Your task to perform on an android device: Do I have any events this weekend? Image 0: 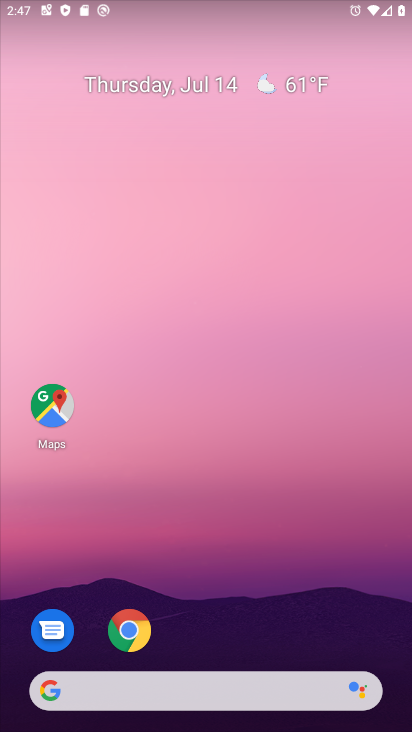
Step 0: drag from (182, 678) to (256, 136)
Your task to perform on an android device: Do I have any events this weekend? Image 1: 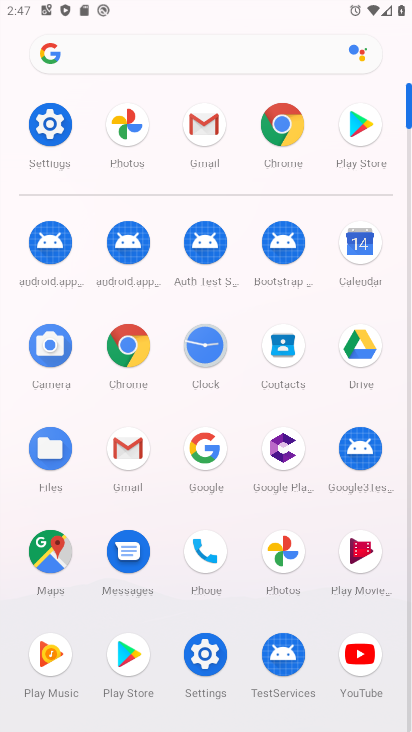
Step 1: click (359, 251)
Your task to perform on an android device: Do I have any events this weekend? Image 2: 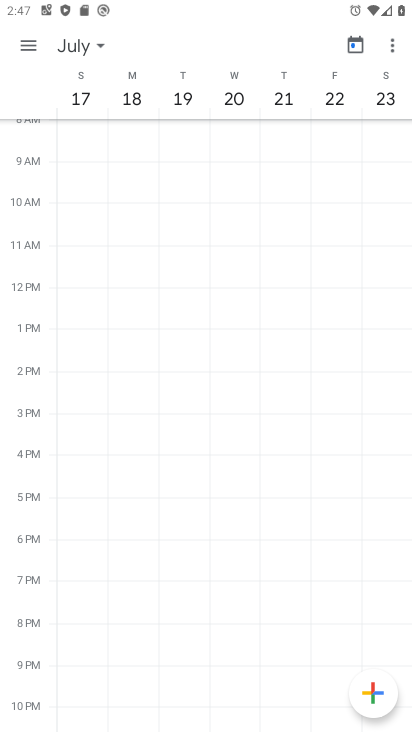
Step 2: click (83, 47)
Your task to perform on an android device: Do I have any events this weekend? Image 3: 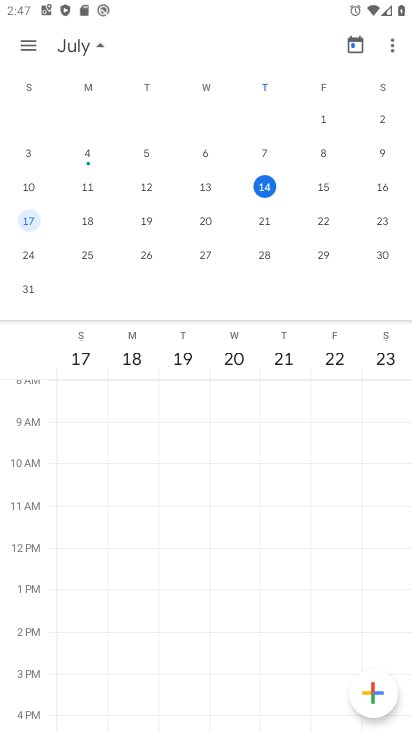
Step 3: click (380, 193)
Your task to perform on an android device: Do I have any events this weekend? Image 4: 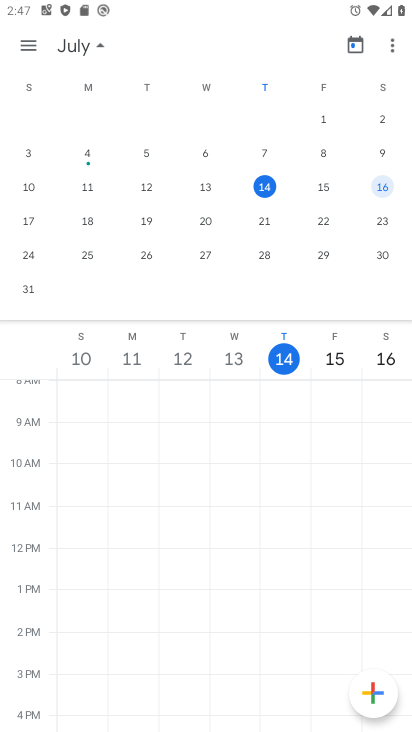
Step 4: click (26, 49)
Your task to perform on an android device: Do I have any events this weekend? Image 5: 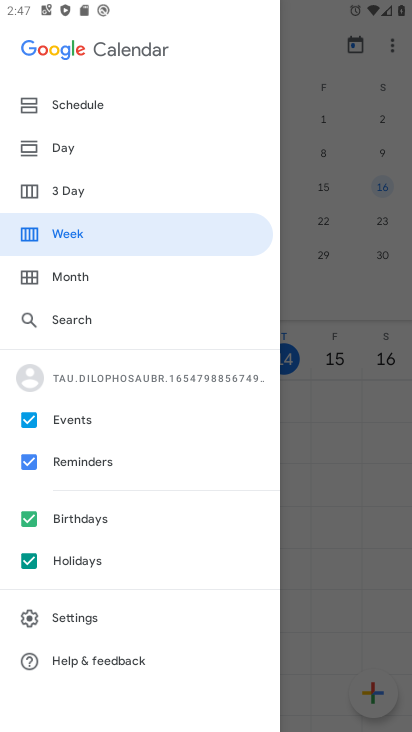
Step 5: click (71, 152)
Your task to perform on an android device: Do I have any events this weekend? Image 6: 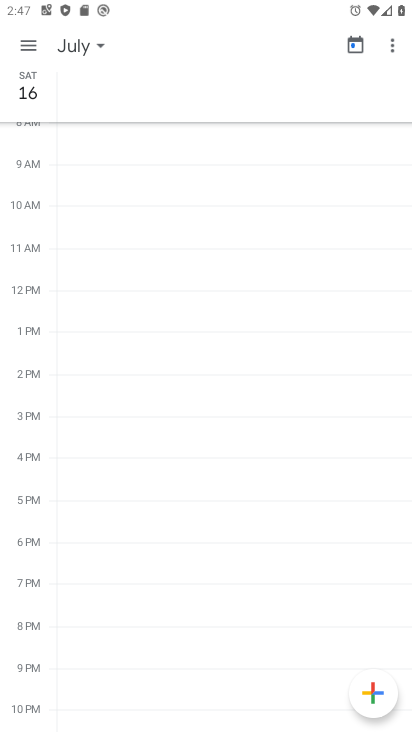
Step 6: click (40, 42)
Your task to perform on an android device: Do I have any events this weekend? Image 7: 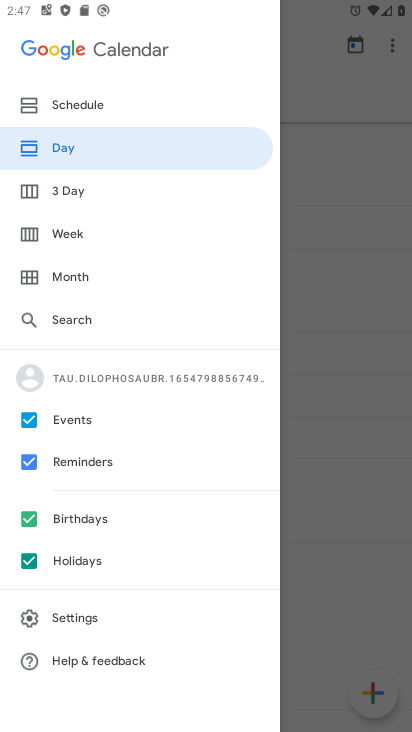
Step 7: click (94, 105)
Your task to perform on an android device: Do I have any events this weekend? Image 8: 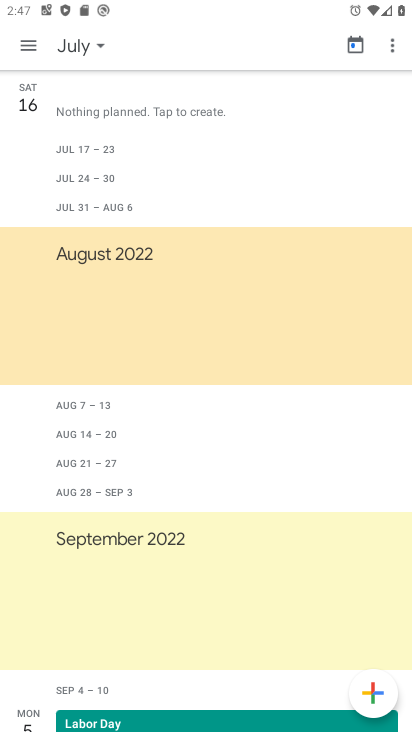
Step 8: task complete